Your task to perform on an android device: Open battery settings Image 0: 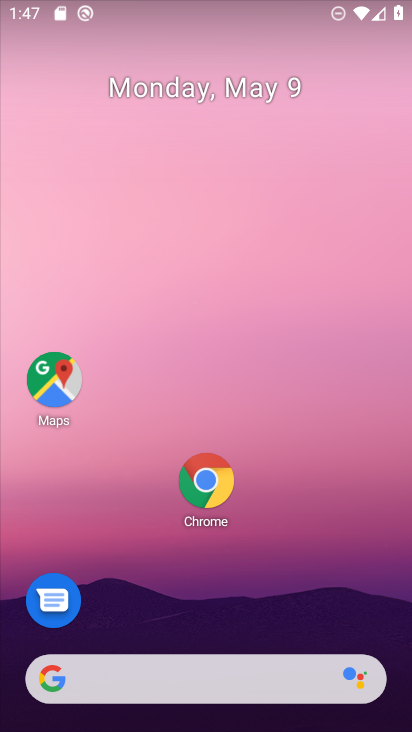
Step 0: drag from (256, 385) to (365, 21)
Your task to perform on an android device: Open battery settings Image 1: 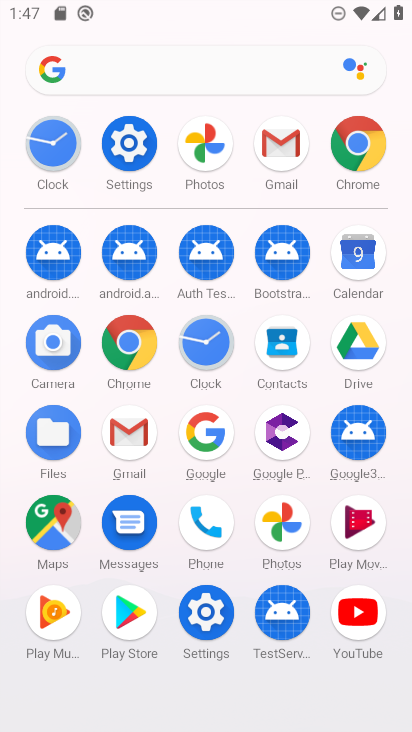
Step 1: click (130, 147)
Your task to perform on an android device: Open battery settings Image 2: 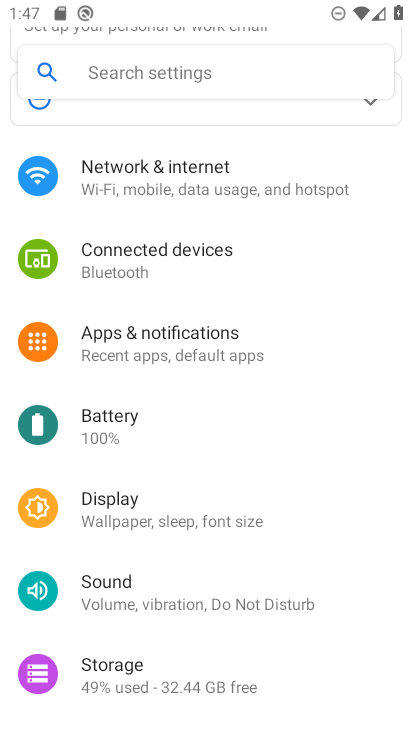
Step 2: click (107, 428)
Your task to perform on an android device: Open battery settings Image 3: 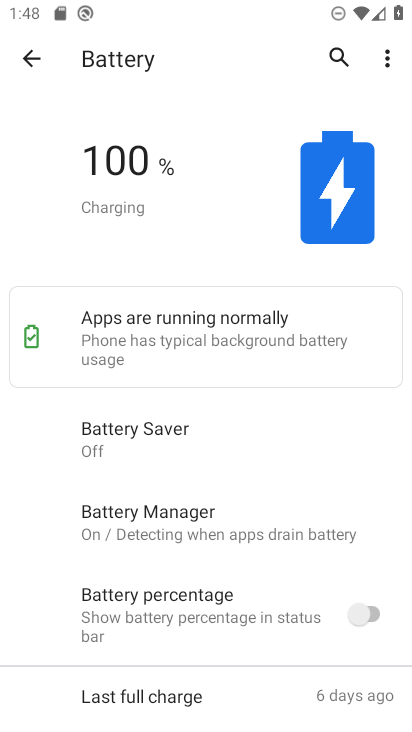
Step 3: task complete